Your task to perform on an android device: delete browsing data in the chrome app Image 0: 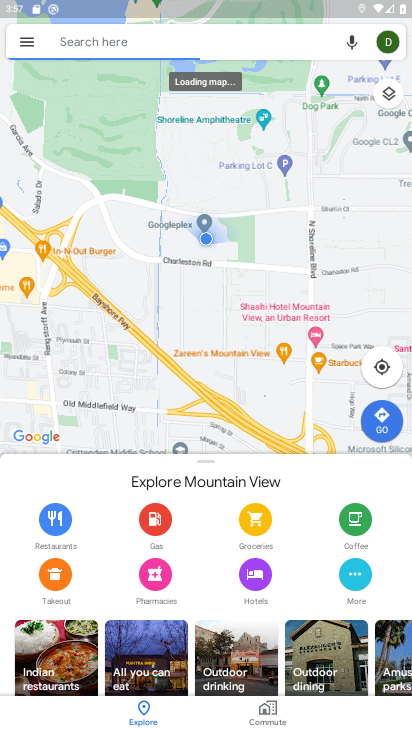
Step 0: press home button
Your task to perform on an android device: delete browsing data in the chrome app Image 1: 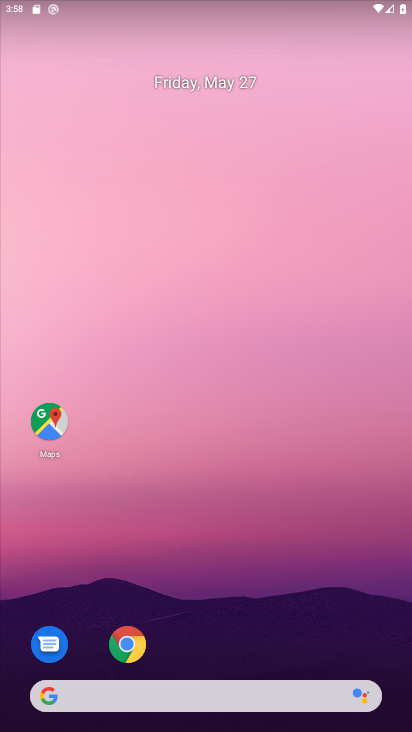
Step 1: click (139, 635)
Your task to perform on an android device: delete browsing data in the chrome app Image 2: 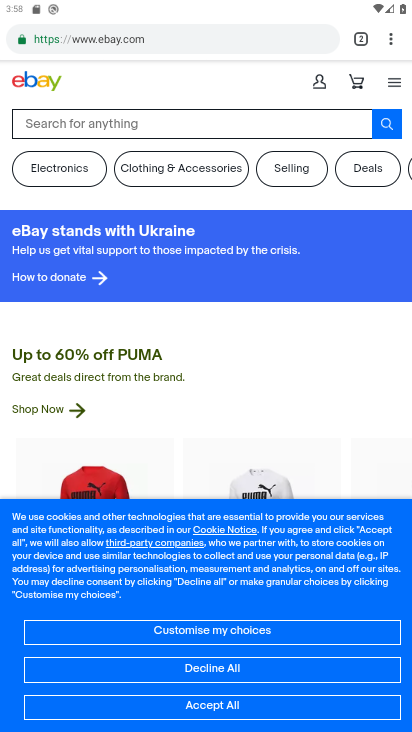
Step 2: click (389, 36)
Your task to perform on an android device: delete browsing data in the chrome app Image 3: 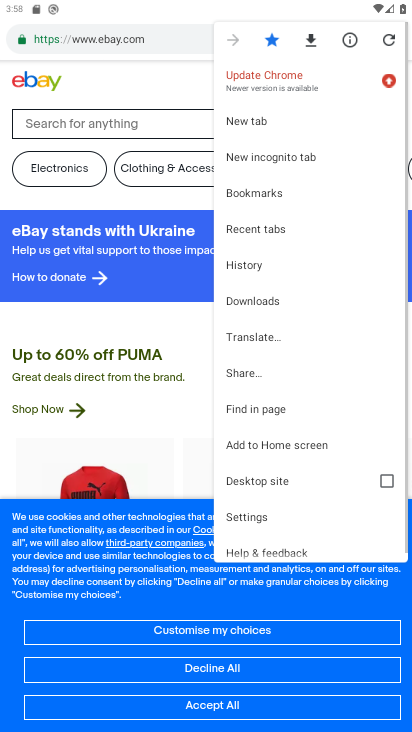
Step 3: click (246, 263)
Your task to perform on an android device: delete browsing data in the chrome app Image 4: 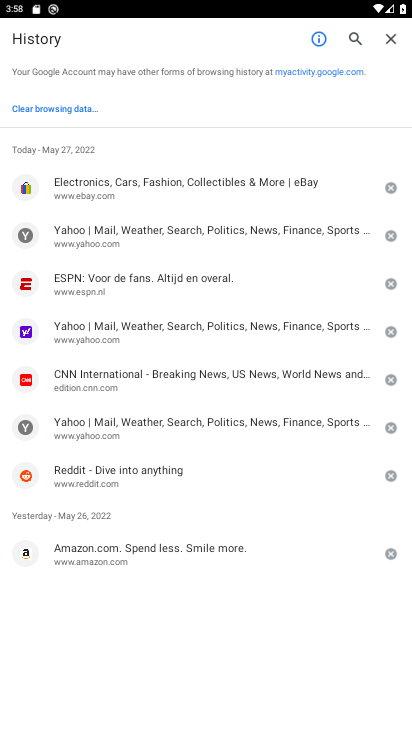
Step 4: click (81, 104)
Your task to perform on an android device: delete browsing data in the chrome app Image 5: 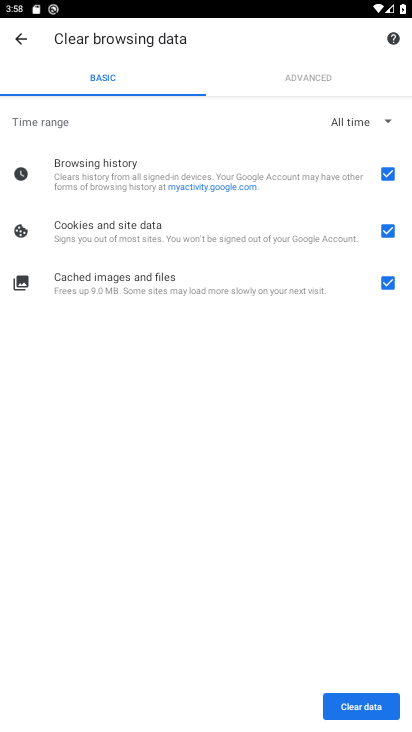
Step 5: click (376, 703)
Your task to perform on an android device: delete browsing data in the chrome app Image 6: 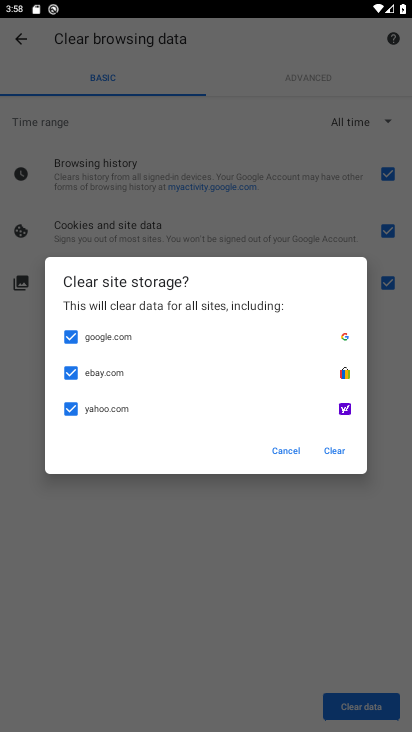
Step 6: click (340, 452)
Your task to perform on an android device: delete browsing data in the chrome app Image 7: 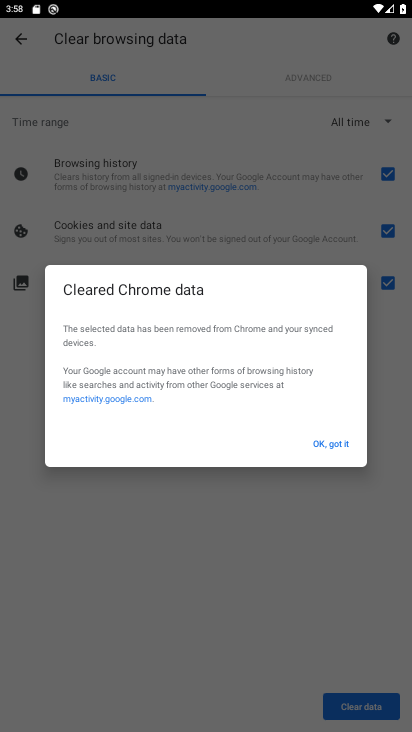
Step 7: click (329, 437)
Your task to perform on an android device: delete browsing data in the chrome app Image 8: 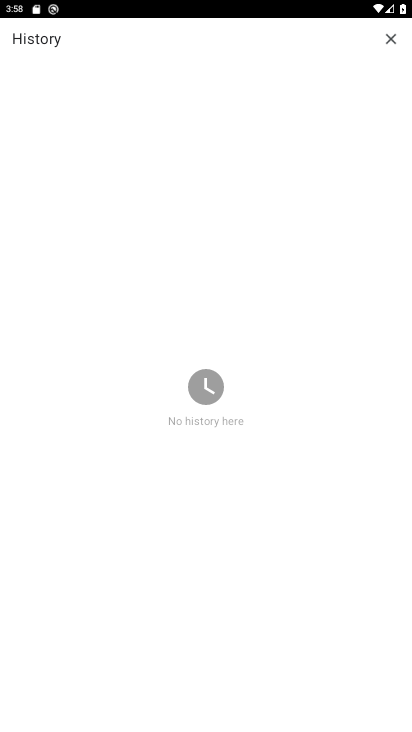
Step 8: task complete